Your task to perform on an android device: toggle airplane mode Image 0: 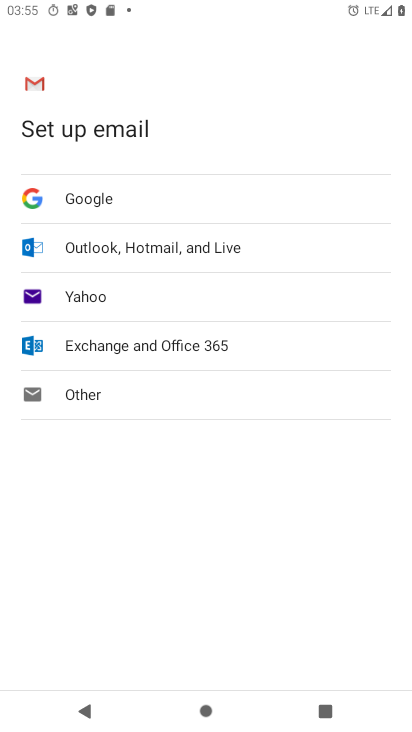
Step 0: press home button
Your task to perform on an android device: toggle airplane mode Image 1: 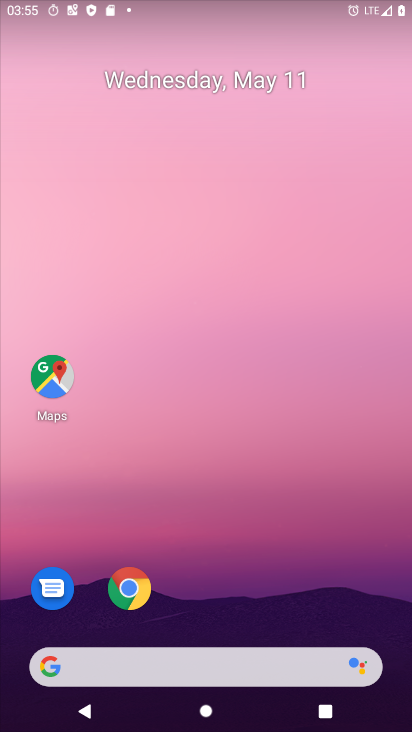
Step 1: drag from (228, 601) to (238, 127)
Your task to perform on an android device: toggle airplane mode Image 2: 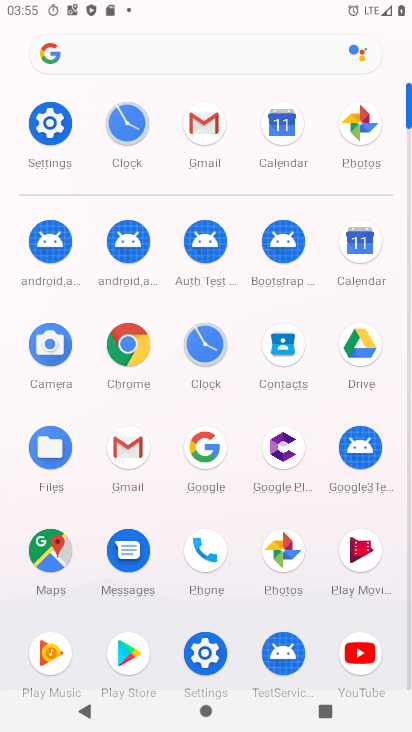
Step 2: click (59, 114)
Your task to perform on an android device: toggle airplane mode Image 3: 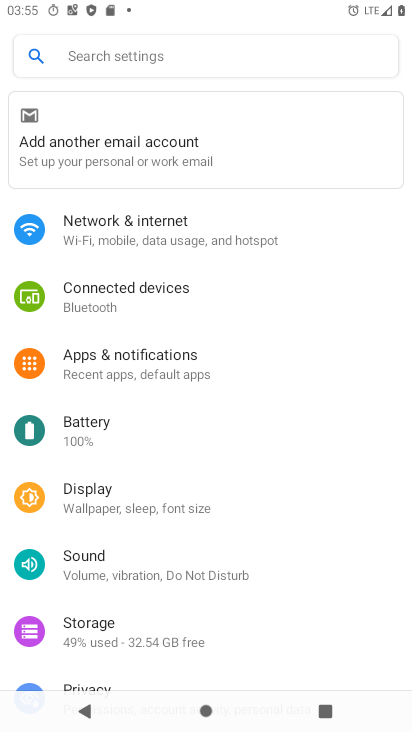
Step 3: click (156, 235)
Your task to perform on an android device: toggle airplane mode Image 4: 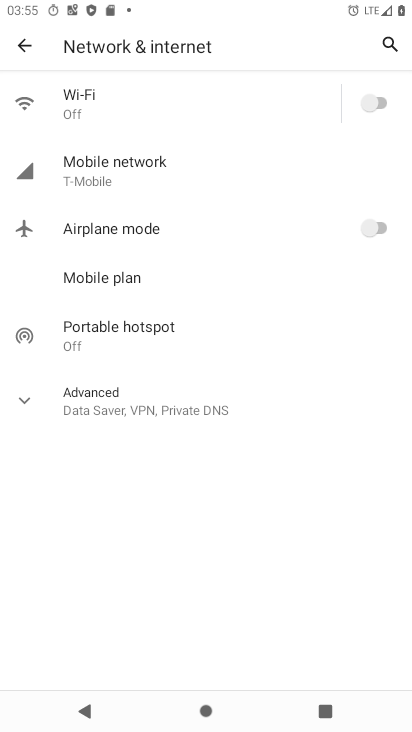
Step 4: click (381, 224)
Your task to perform on an android device: toggle airplane mode Image 5: 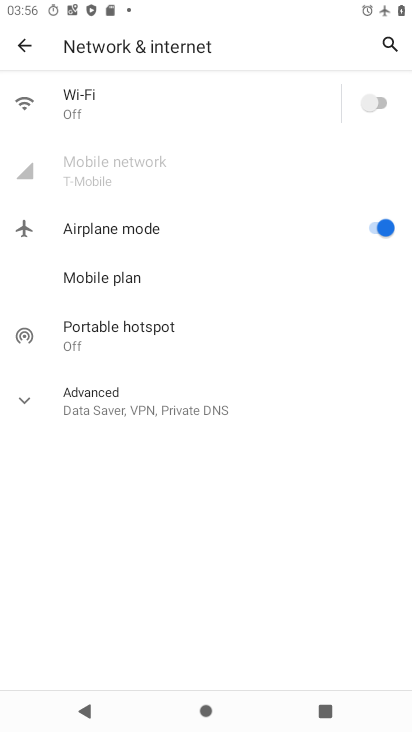
Step 5: task complete